Your task to perform on an android device: turn on wifi Image 0: 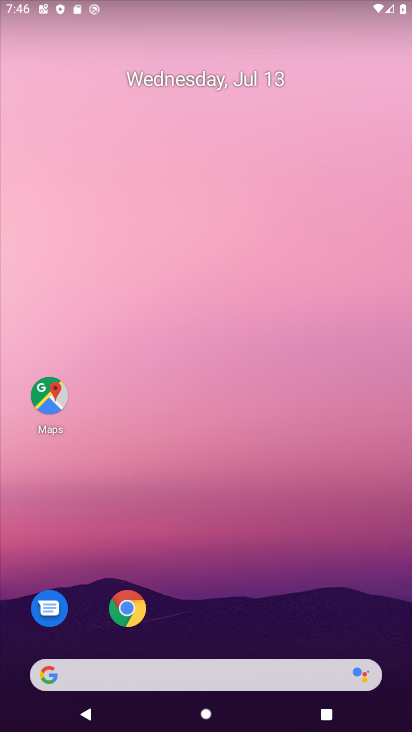
Step 0: drag from (227, 645) to (289, 13)
Your task to perform on an android device: turn on wifi Image 1: 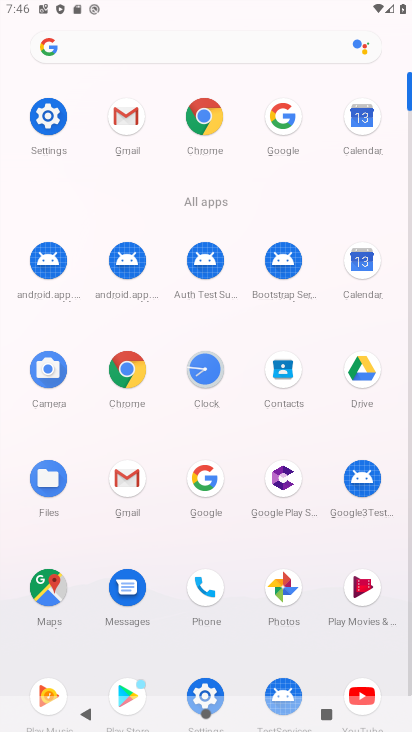
Step 1: click (50, 104)
Your task to perform on an android device: turn on wifi Image 2: 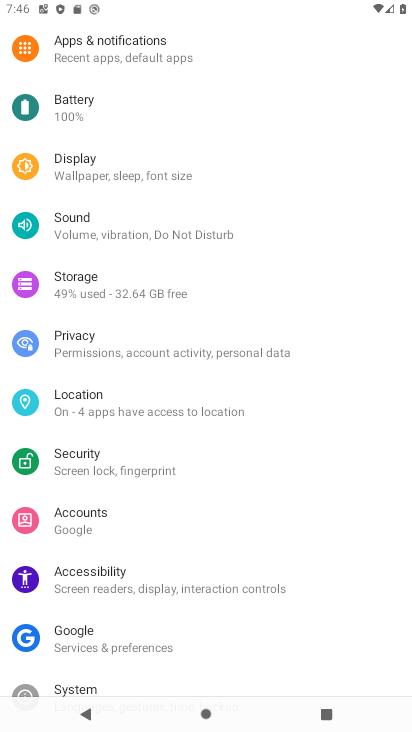
Step 2: drag from (50, 105) to (120, 535)
Your task to perform on an android device: turn on wifi Image 3: 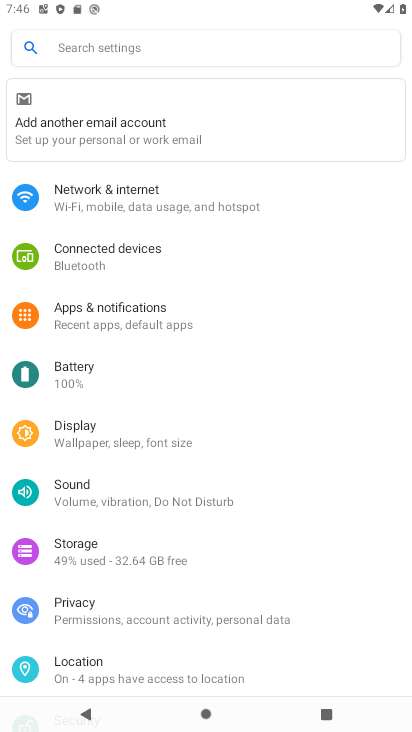
Step 3: click (113, 208)
Your task to perform on an android device: turn on wifi Image 4: 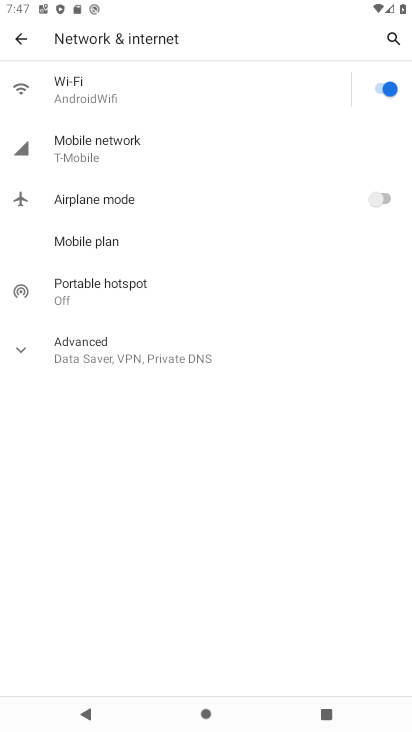
Step 4: click (77, 89)
Your task to perform on an android device: turn on wifi Image 5: 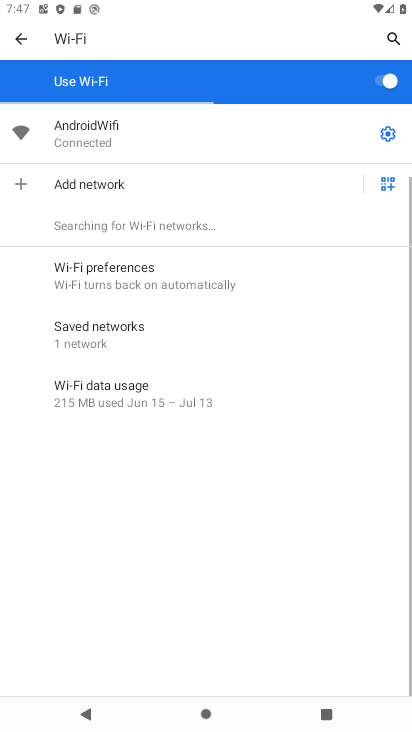
Step 5: task complete